Your task to perform on an android device: Go to Yahoo.com Image 0: 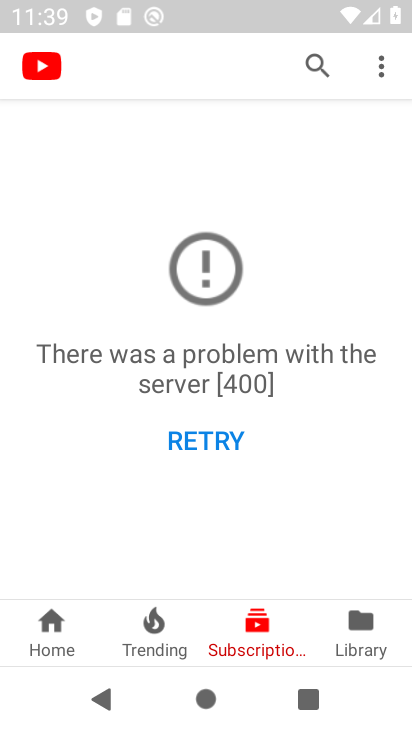
Step 0: drag from (183, 567) to (193, 533)
Your task to perform on an android device: Go to Yahoo.com Image 1: 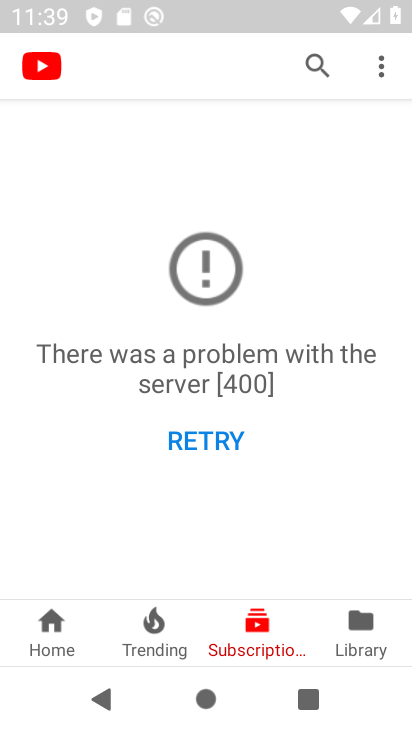
Step 1: press home button
Your task to perform on an android device: Go to Yahoo.com Image 2: 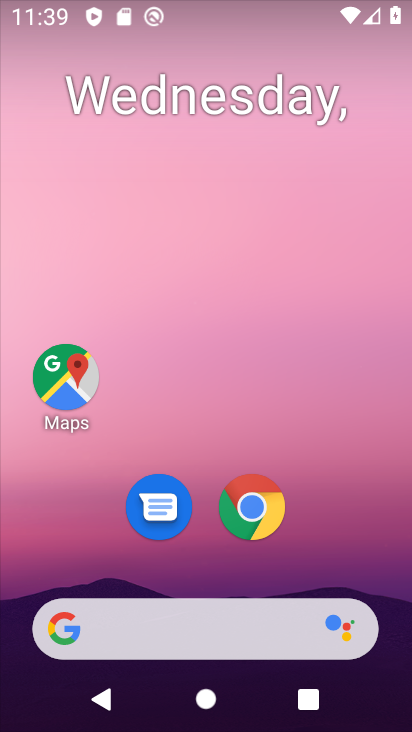
Step 2: click (263, 498)
Your task to perform on an android device: Go to Yahoo.com Image 3: 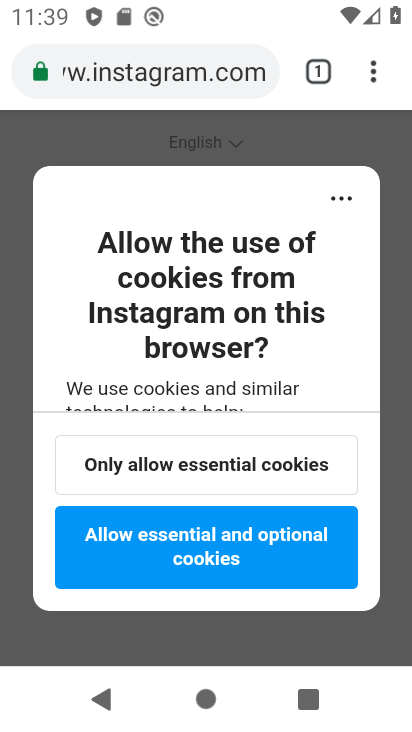
Step 3: press back button
Your task to perform on an android device: Go to Yahoo.com Image 4: 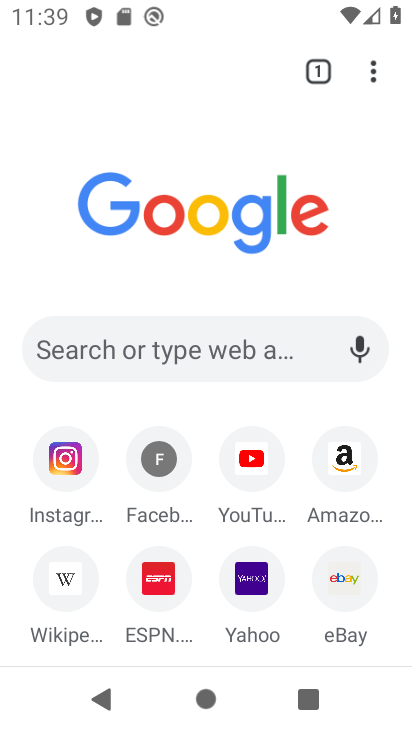
Step 4: click (258, 592)
Your task to perform on an android device: Go to Yahoo.com Image 5: 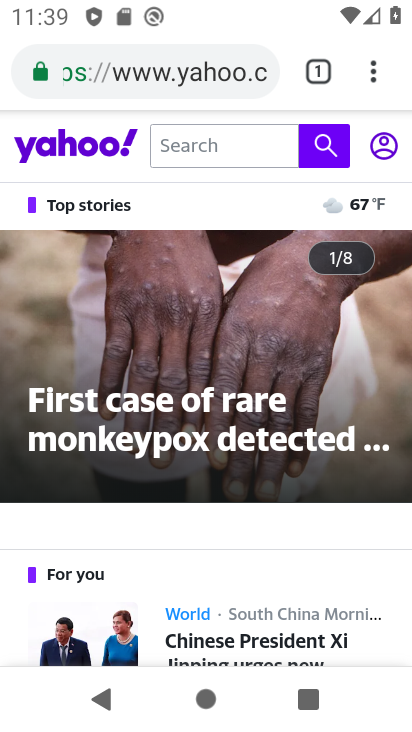
Step 5: task complete